Your task to perform on an android device: delete the emails in spam in the gmail app Image 0: 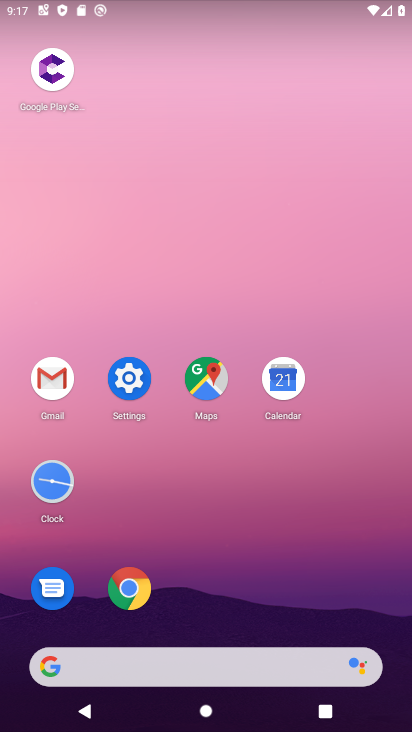
Step 0: click (46, 382)
Your task to perform on an android device: delete the emails in spam in the gmail app Image 1: 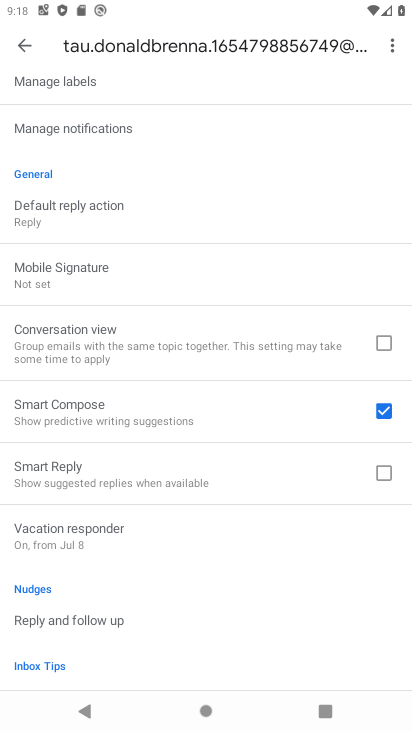
Step 1: click (24, 48)
Your task to perform on an android device: delete the emails in spam in the gmail app Image 2: 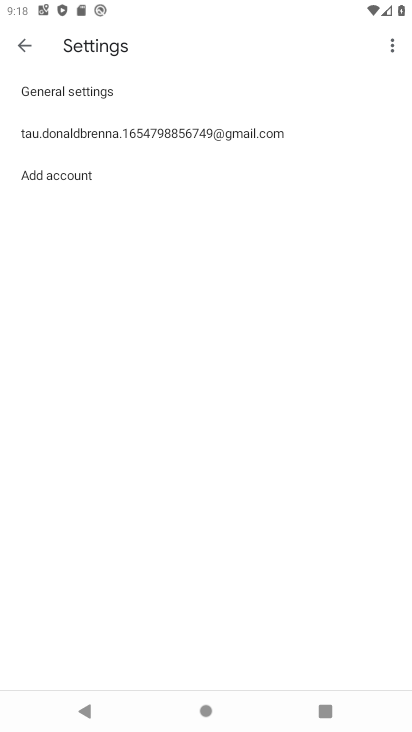
Step 2: click (23, 48)
Your task to perform on an android device: delete the emails in spam in the gmail app Image 3: 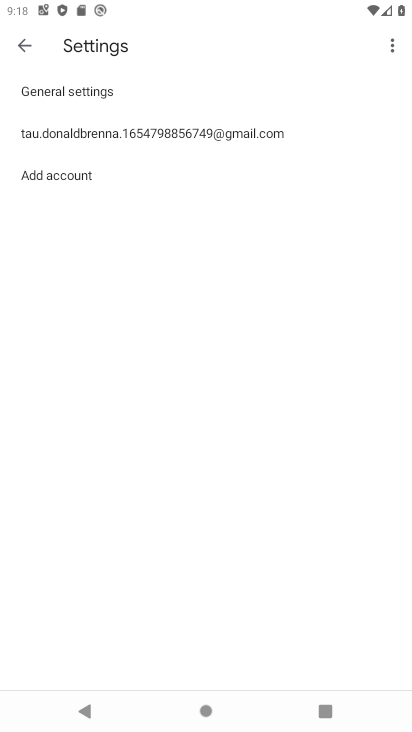
Step 3: click (23, 48)
Your task to perform on an android device: delete the emails in spam in the gmail app Image 4: 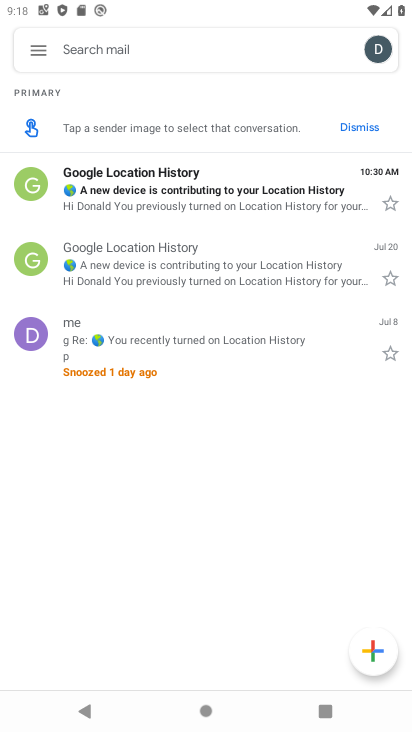
Step 4: click (246, 193)
Your task to perform on an android device: delete the emails in spam in the gmail app Image 5: 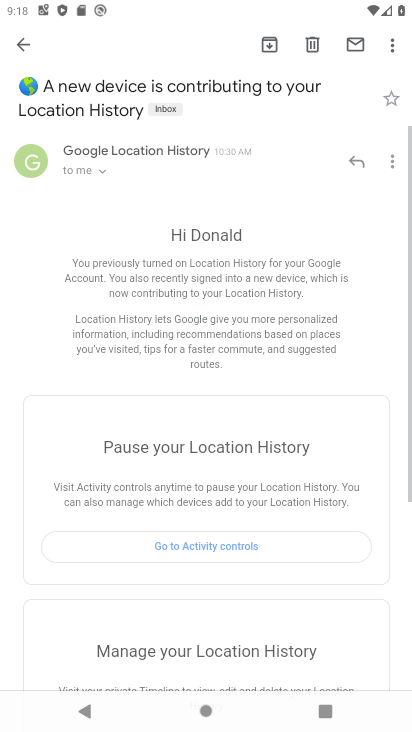
Step 5: click (312, 45)
Your task to perform on an android device: delete the emails in spam in the gmail app Image 6: 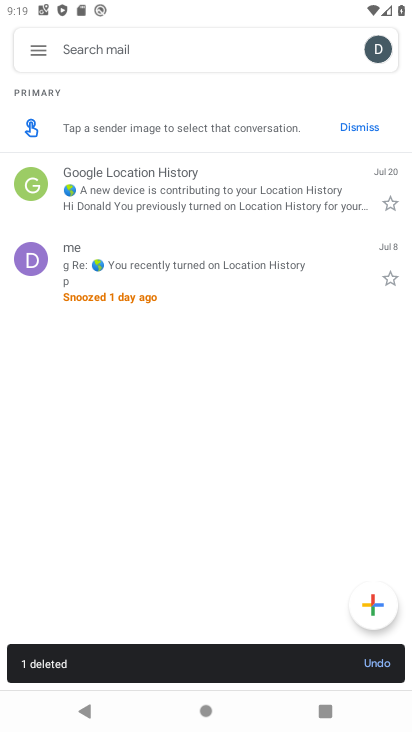
Step 6: task complete